Your task to perform on an android device: remove spam from my inbox in the gmail app Image 0: 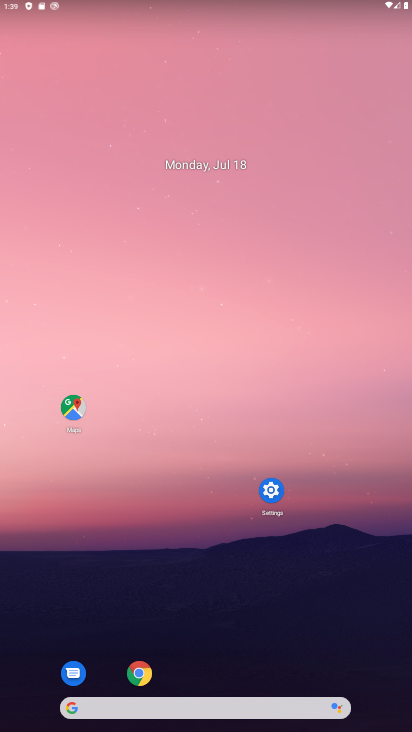
Step 0: press home button
Your task to perform on an android device: remove spam from my inbox in the gmail app Image 1: 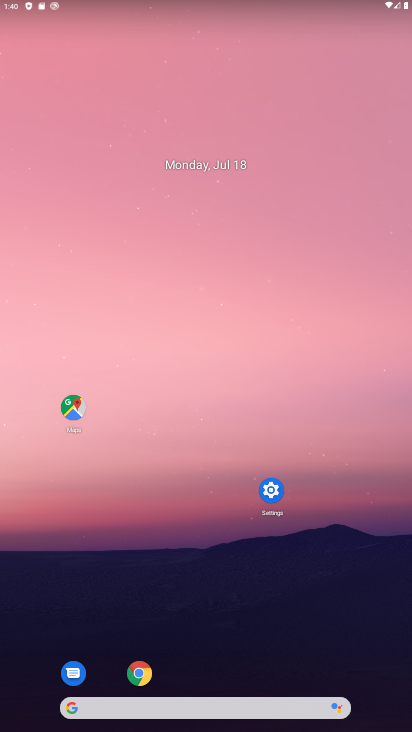
Step 1: drag from (261, 721) to (257, 160)
Your task to perform on an android device: remove spam from my inbox in the gmail app Image 2: 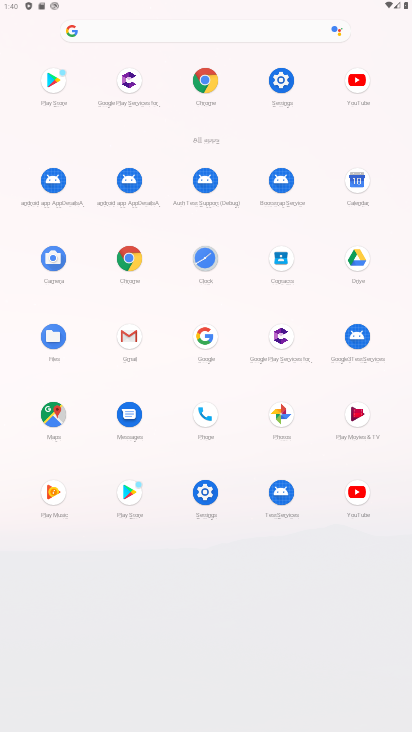
Step 2: drag from (128, 332) to (230, 565)
Your task to perform on an android device: remove spam from my inbox in the gmail app Image 3: 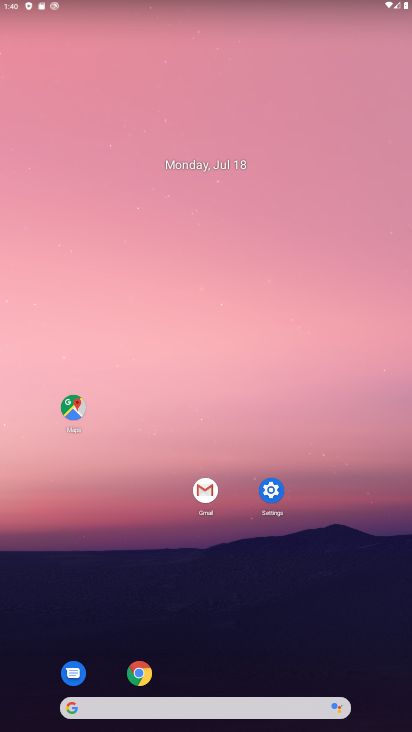
Step 3: click (218, 490)
Your task to perform on an android device: remove spam from my inbox in the gmail app Image 4: 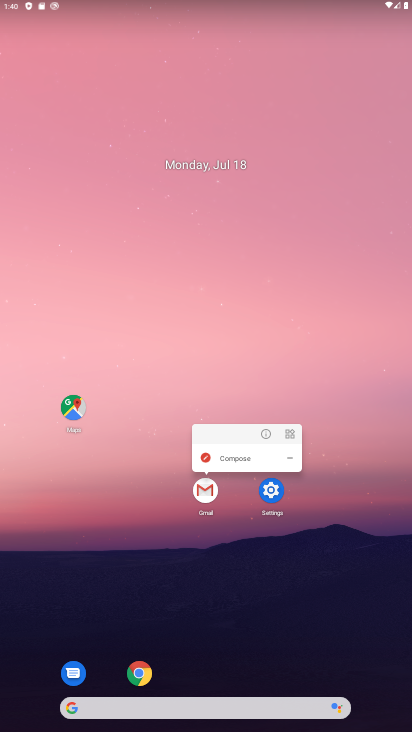
Step 4: click (212, 494)
Your task to perform on an android device: remove spam from my inbox in the gmail app Image 5: 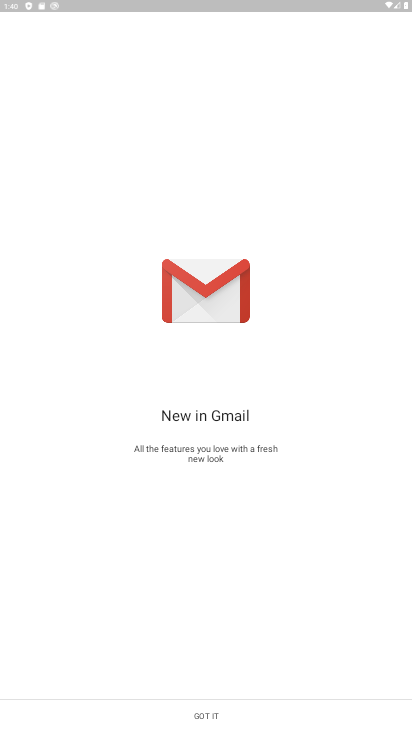
Step 5: click (207, 712)
Your task to perform on an android device: remove spam from my inbox in the gmail app Image 6: 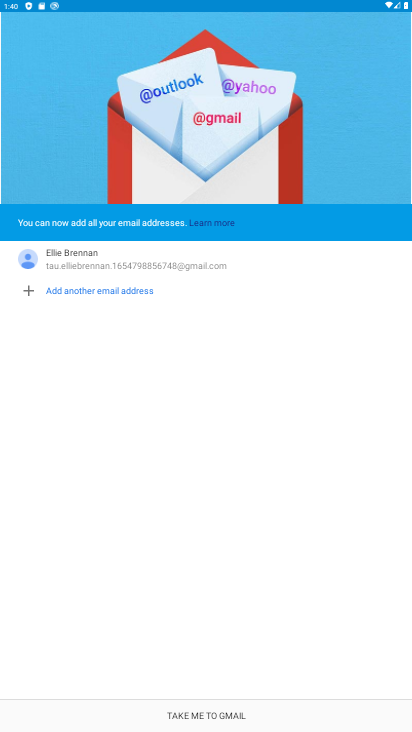
Step 6: click (207, 712)
Your task to perform on an android device: remove spam from my inbox in the gmail app Image 7: 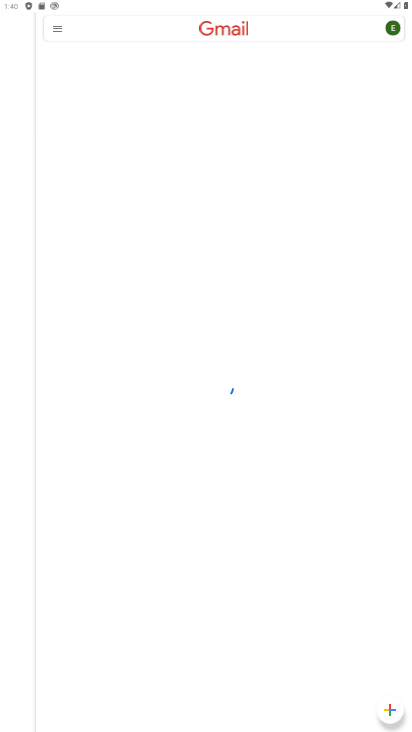
Step 7: click (20, 35)
Your task to perform on an android device: remove spam from my inbox in the gmail app Image 8: 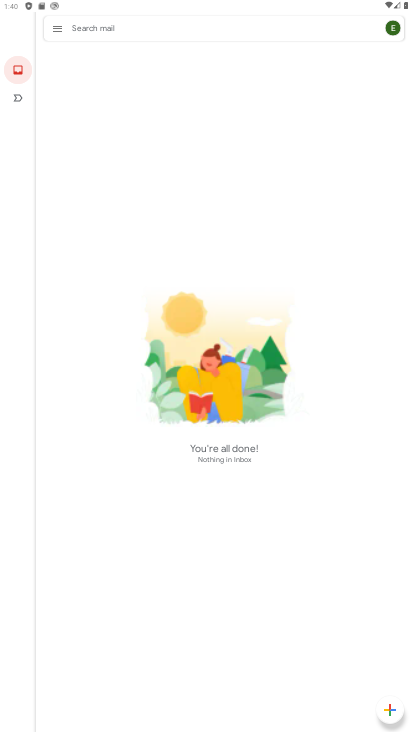
Step 8: click (55, 35)
Your task to perform on an android device: remove spam from my inbox in the gmail app Image 9: 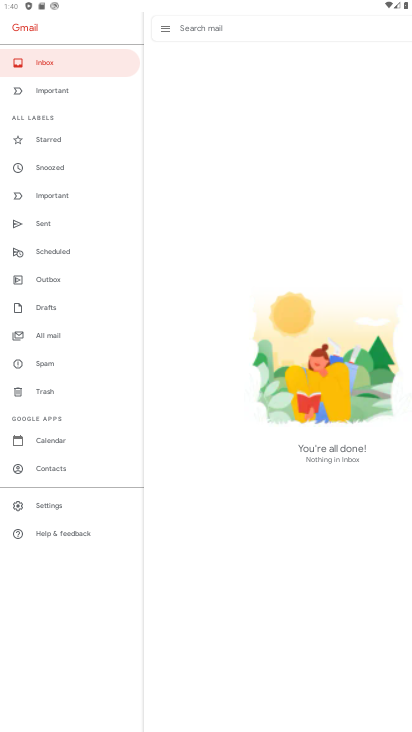
Step 9: click (47, 368)
Your task to perform on an android device: remove spam from my inbox in the gmail app Image 10: 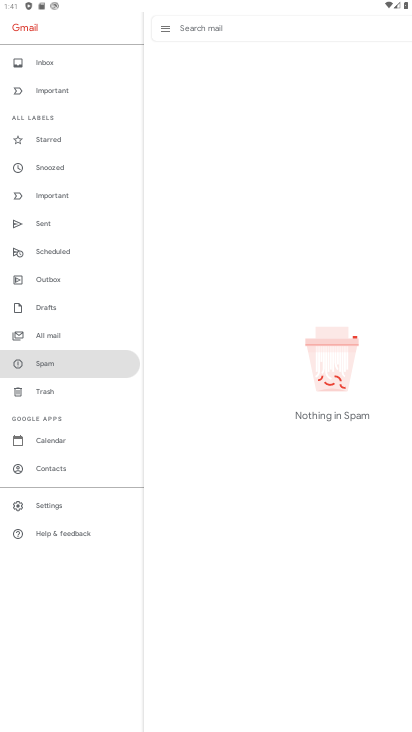
Step 10: task complete